Your task to perform on an android device: turn on bluetooth scan Image 0: 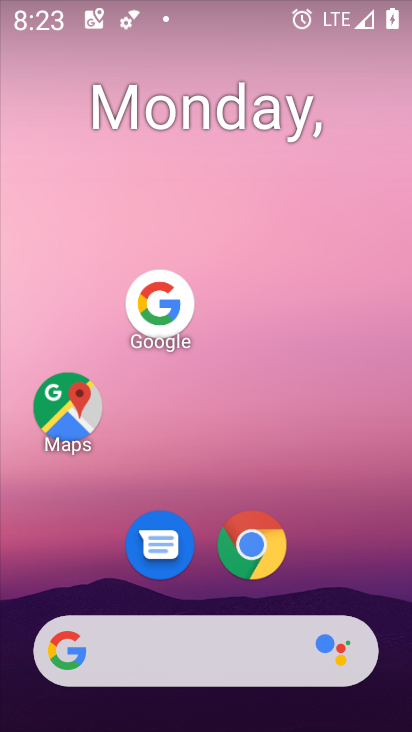
Step 0: drag from (189, 651) to (336, 157)
Your task to perform on an android device: turn on bluetooth scan Image 1: 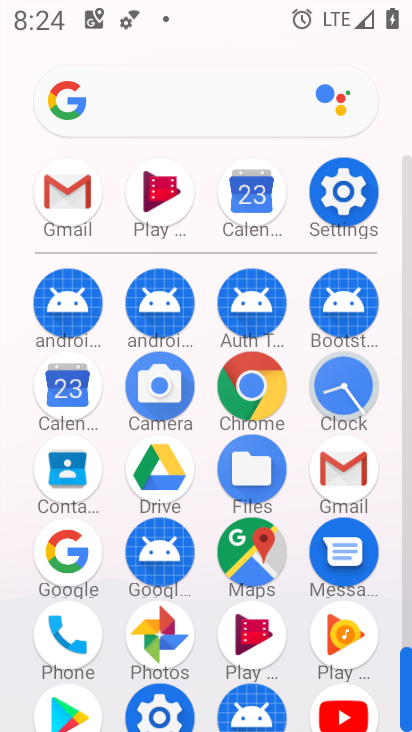
Step 1: click (353, 199)
Your task to perform on an android device: turn on bluetooth scan Image 2: 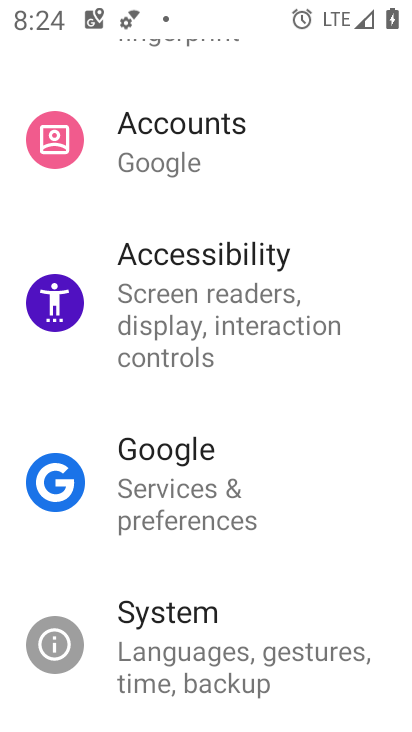
Step 2: drag from (316, 177) to (244, 628)
Your task to perform on an android device: turn on bluetooth scan Image 3: 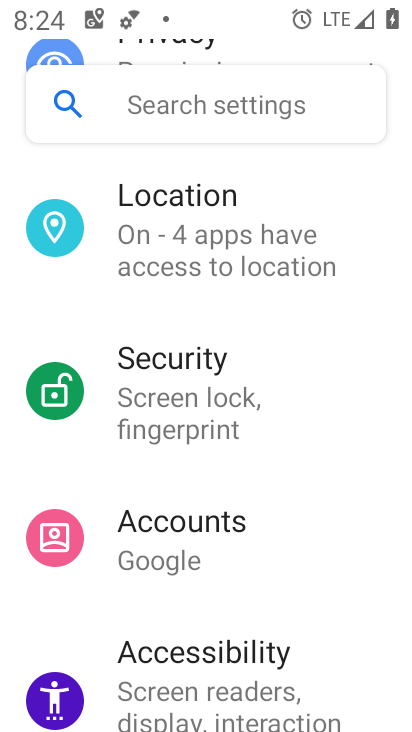
Step 3: click (227, 213)
Your task to perform on an android device: turn on bluetooth scan Image 4: 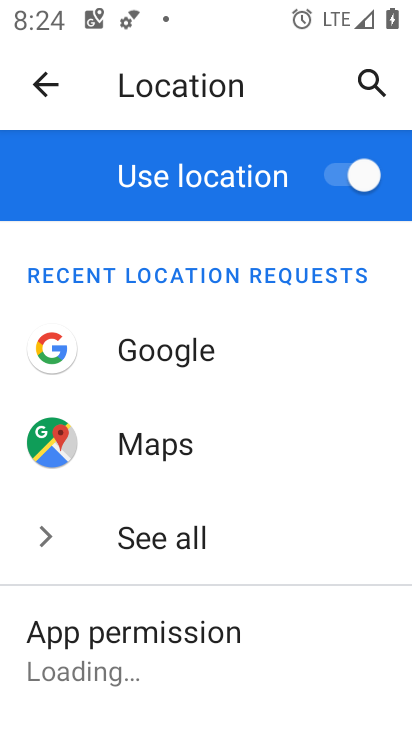
Step 4: drag from (249, 565) to (326, 144)
Your task to perform on an android device: turn on bluetooth scan Image 5: 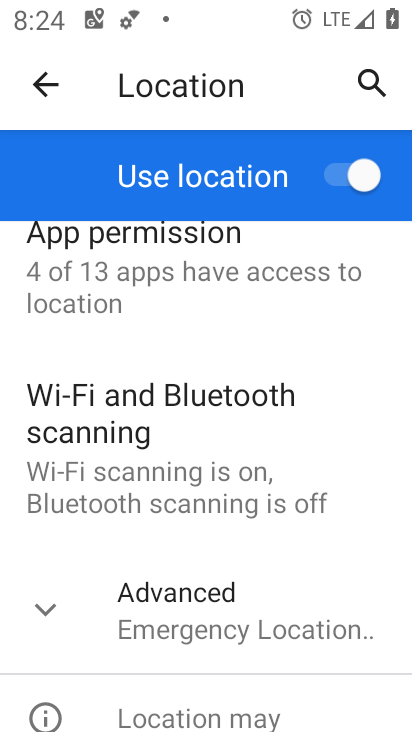
Step 5: click (140, 476)
Your task to perform on an android device: turn on bluetooth scan Image 6: 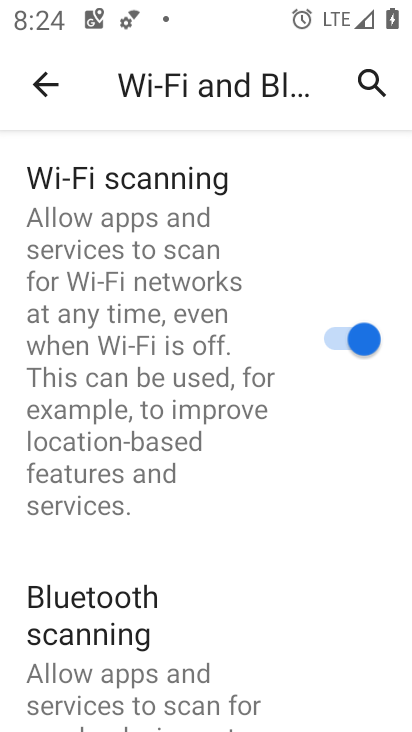
Step 6: drag from (243, 536) to (297, 175)
Your task to perform on an android device: turn on bluetooth scan Image 7: 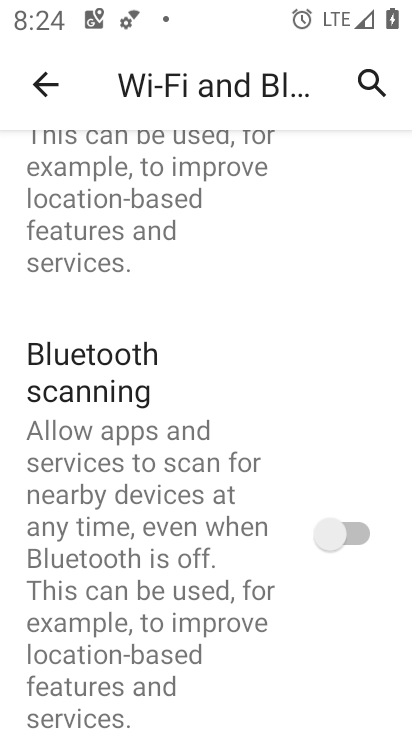
Step 7: click (358, 532)
Your task to perform on an android device: turn on bluetooth scan Image 8: 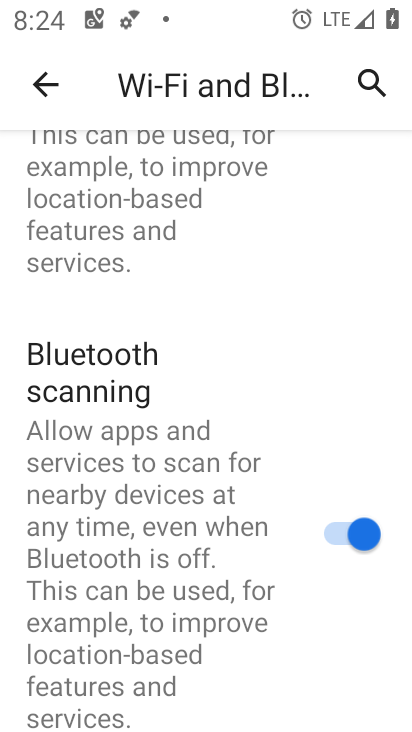
Step 8: task complete